Your task to perform on an android device: turn on data saver in the chrome app Image 0: 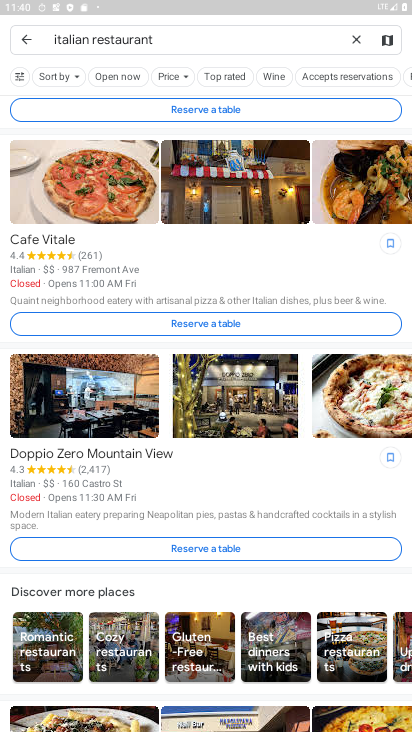
Step 0: press home button
Your task to perform on an android device: turn on data saver in the chrome app Image 1: 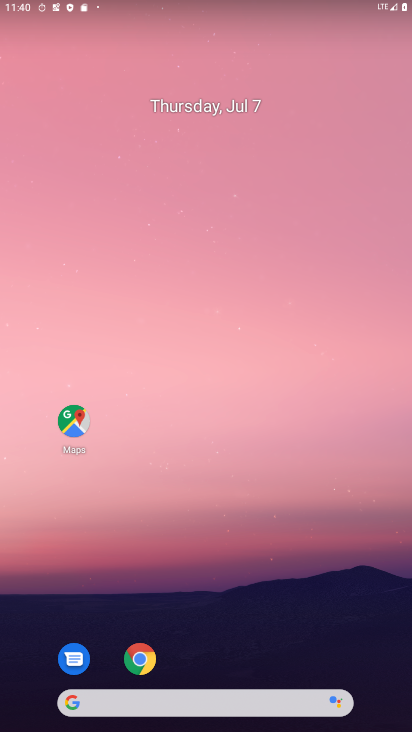
Step 1: drag from (218, 662) to (247, 67)
Your task to perform on an android device: turn on data saver in the chrome app Image 2: 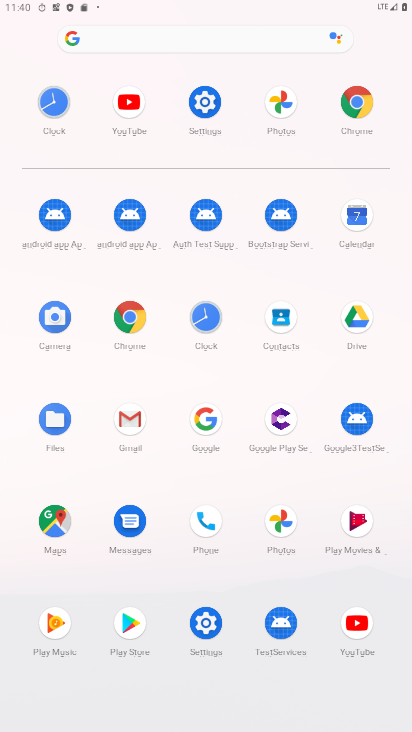
Step 2: click (357, 100)
Your task to perform on an android device: turn on data saver in the chrome app Image 3: 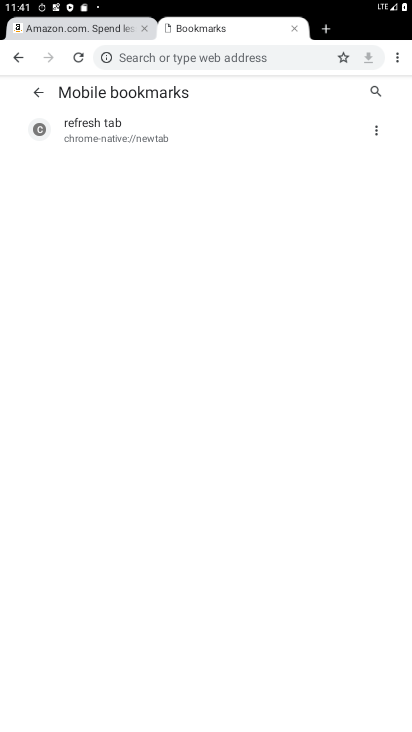
Step 3: click (395, 60)
Your task to perform on an android device: turn on data saver in the chrome app Image 4: 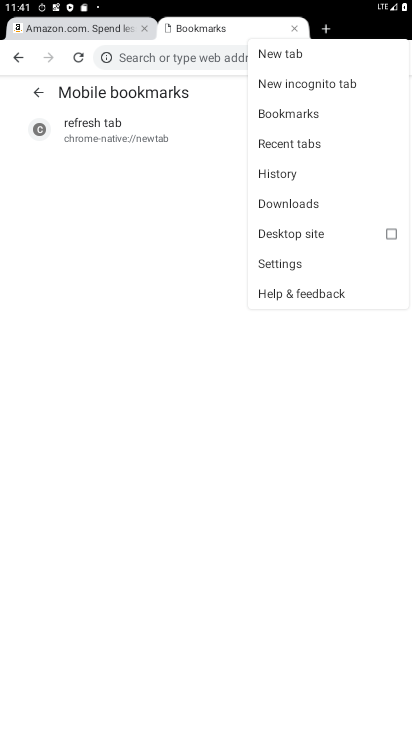
Step 4: click (311, 261)
Your task to perform on an android device: turn on data saver in the chrome app Image 5: 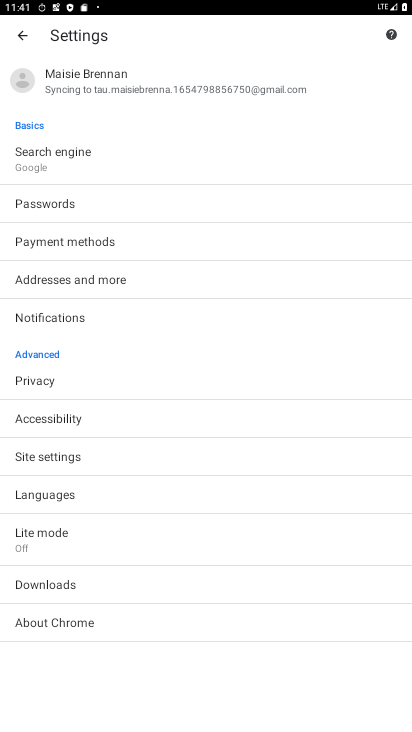
Step 5: click (84, 548)
Your task to perform on an android device: turn on data saver in the chrome app Image 6: 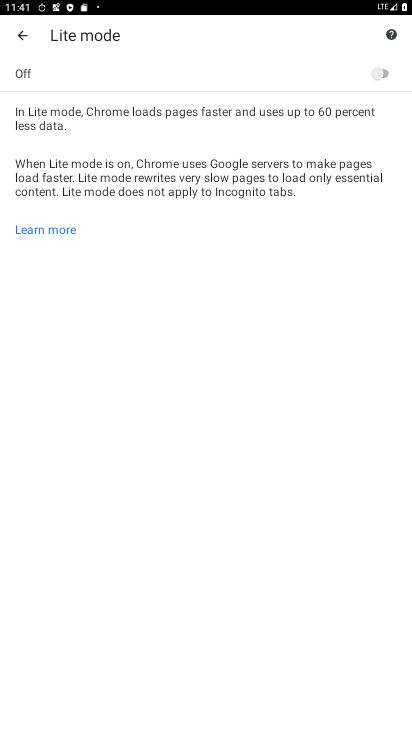
Step 6: click (382, 68)
Your task to perform on an android device: turn on data saver in the chrome app Image 7: 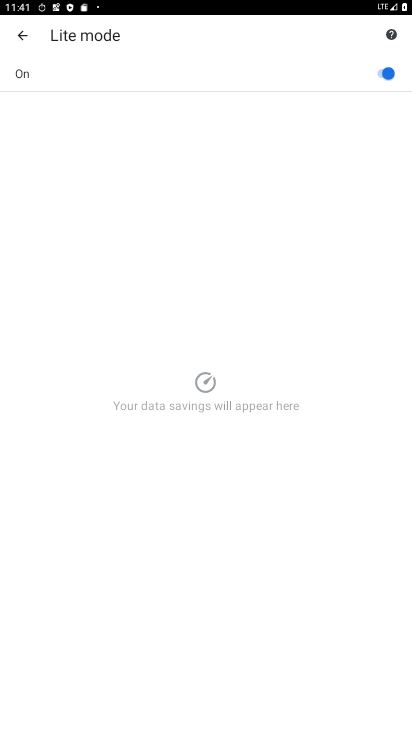
Step 7: task complete